Your task to perform on an android device: Go to ESPN.com Image 0: 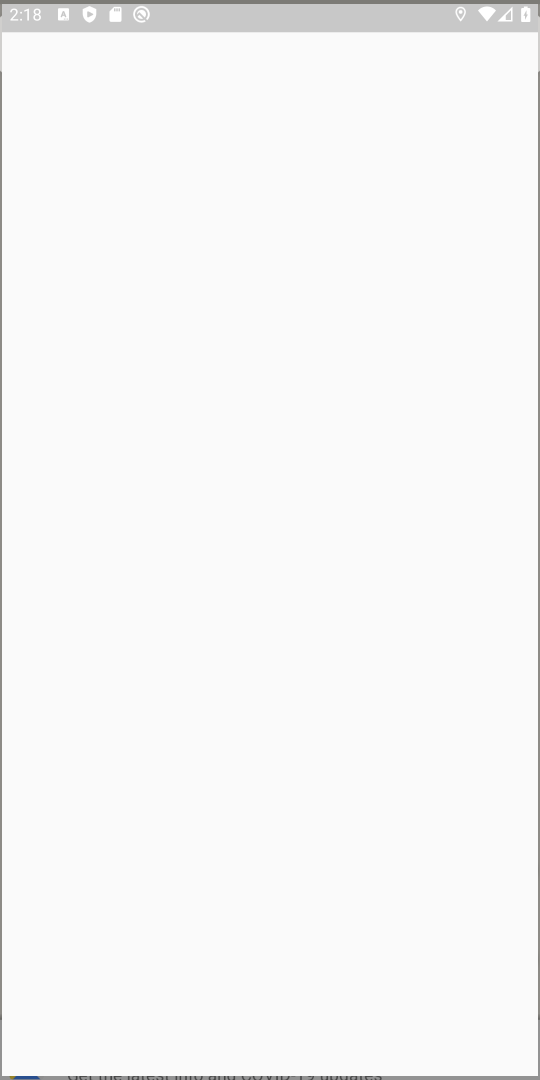
Step 0: press home button
Your task to perform on an android device: Go to ESPN.com Image 1: 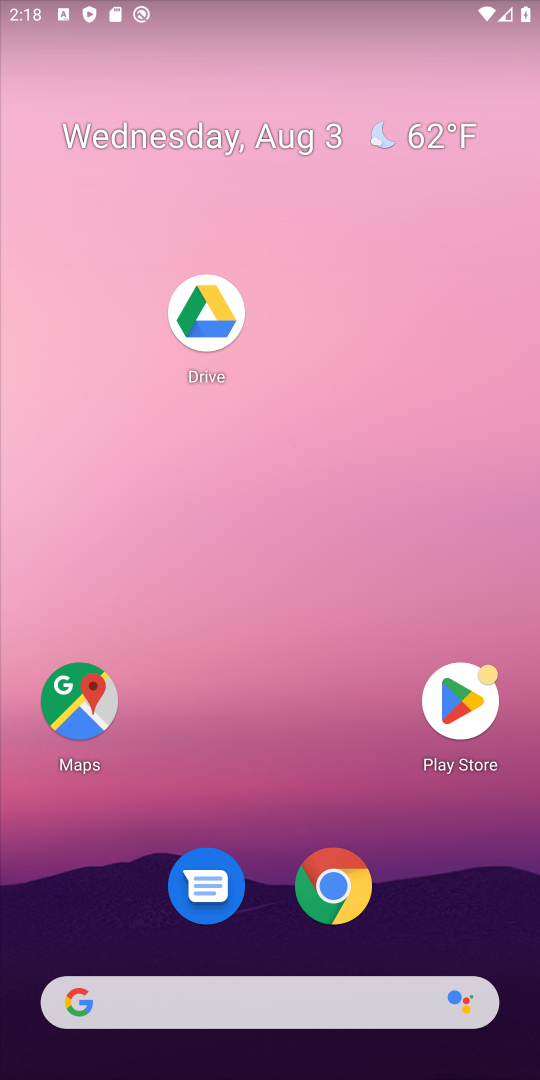
Step 1: drag from (172, 220) to (166, 75)
Your task to perform on an android device: Go to ESPN.com Image 2: 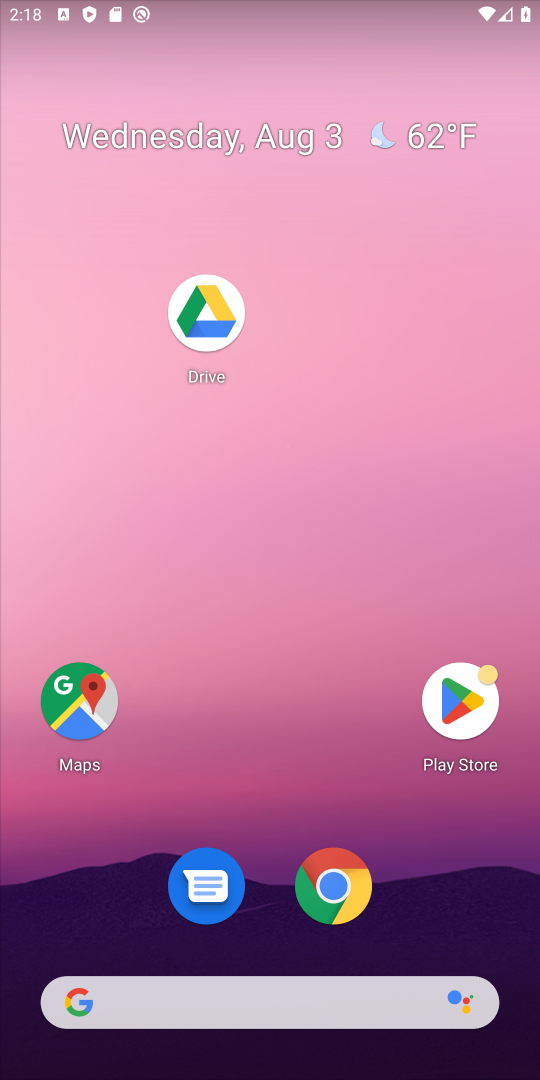
Step 2: drag from (307, 901) to (353, 2)
Your task to perform on an android device: Go to ESPN.com Image 3: 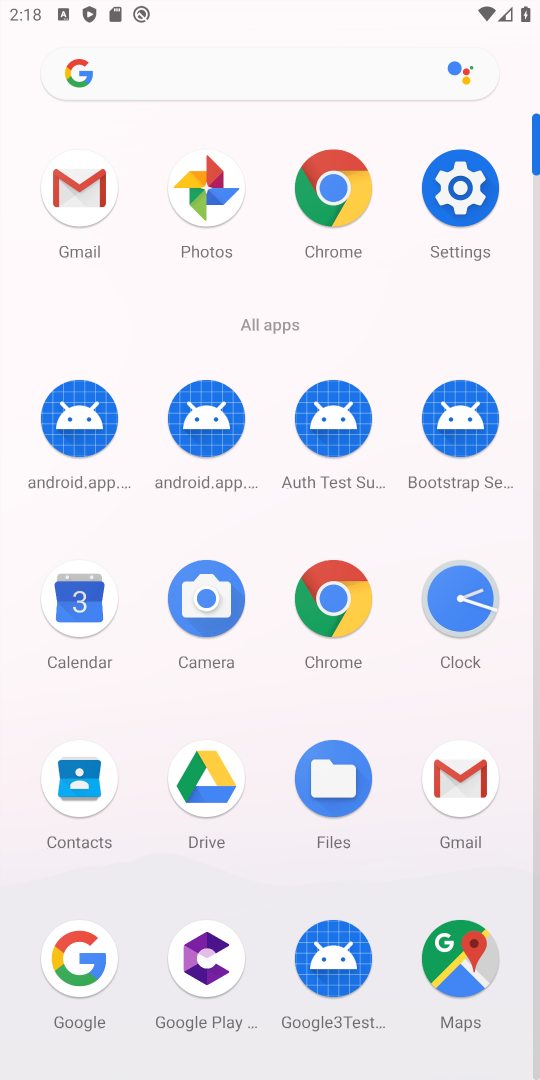
Step 3: click (343, 633)
Your task to perform on an android device: Go to ESPN.com Image 4: 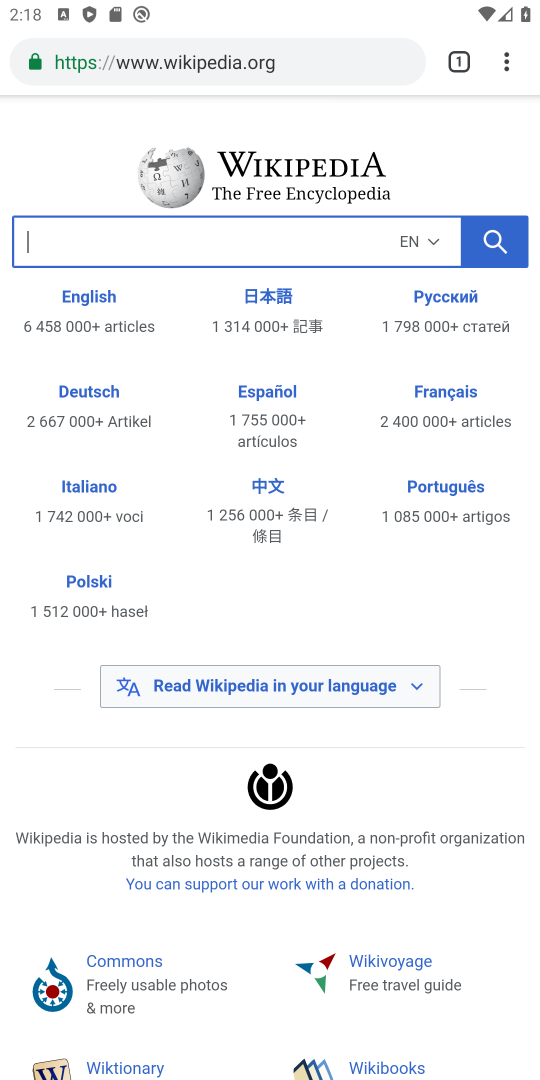
Step 4: click (295, 49)
Your task to perform on an android device: Go to ESPN.com Image 5: 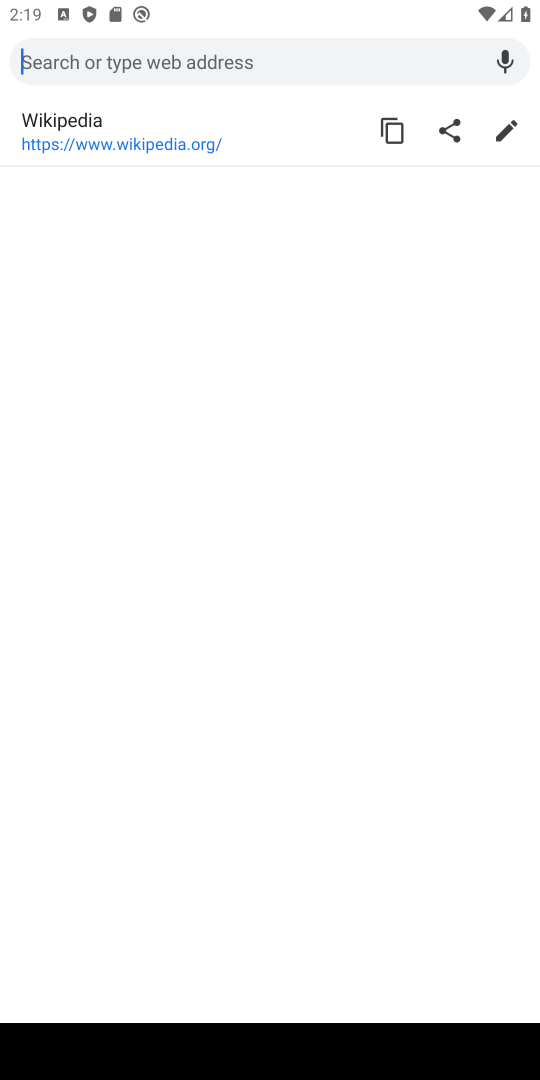
Step 5: type "espn.com"
Your task to perform on an android device: Go to ESPN.com Image 6: 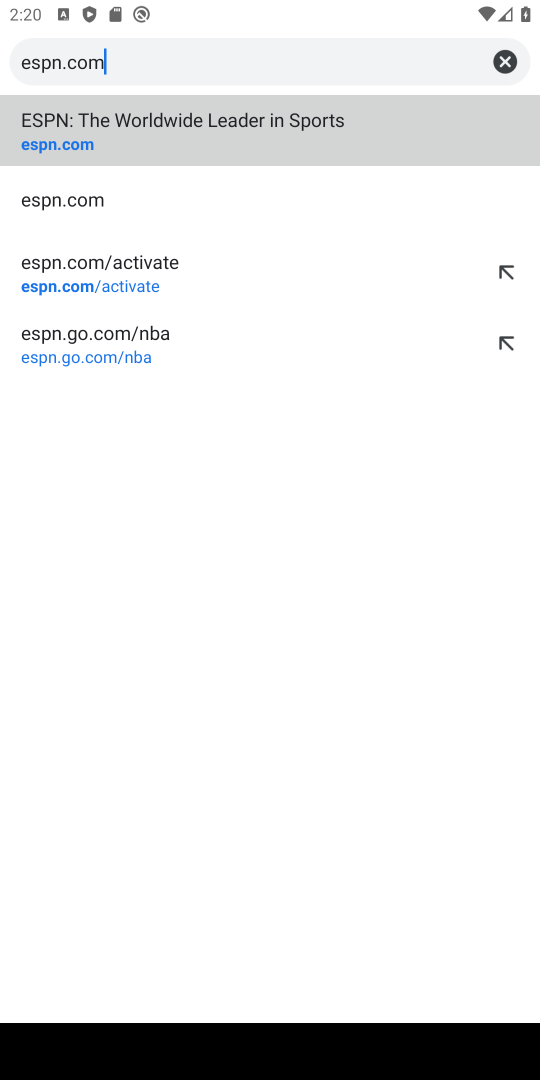
Step 6: click (308, 127)
Your task to perform on an android device: Go to ESPN.com Image 7: 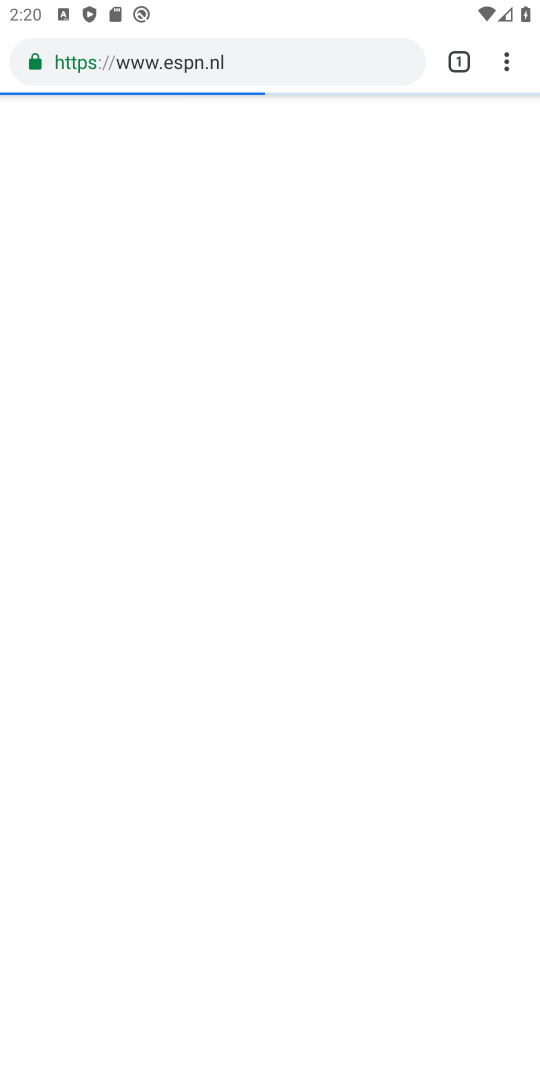
Step 7: task complete